Your task to perform on an android device: turn smart compose on in the gmail app Image 0: 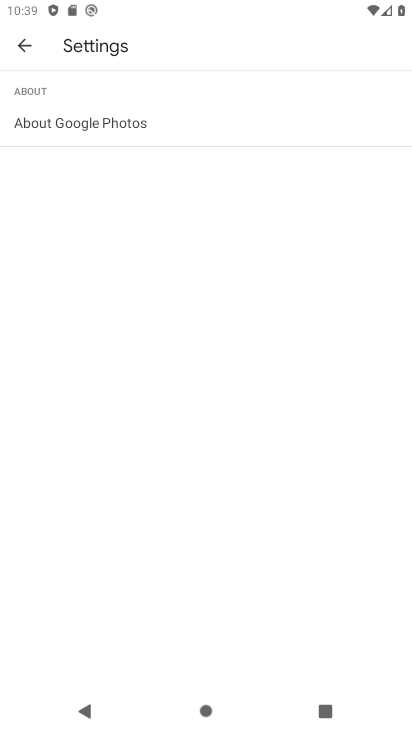
Step 0: press home button
Your task to perform on an android device: turn smart compose on in the gmail app Image 1: 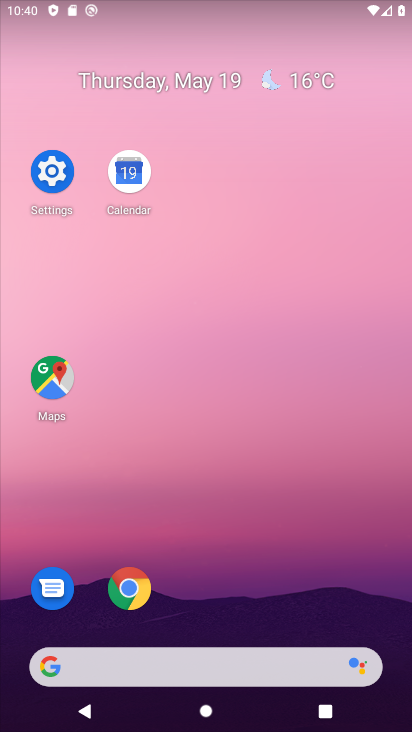
Step 1: drag from (249, 623) to (333, 117)
Your task to perform on an android device: turn smart compose on in the gmail app Image 2: 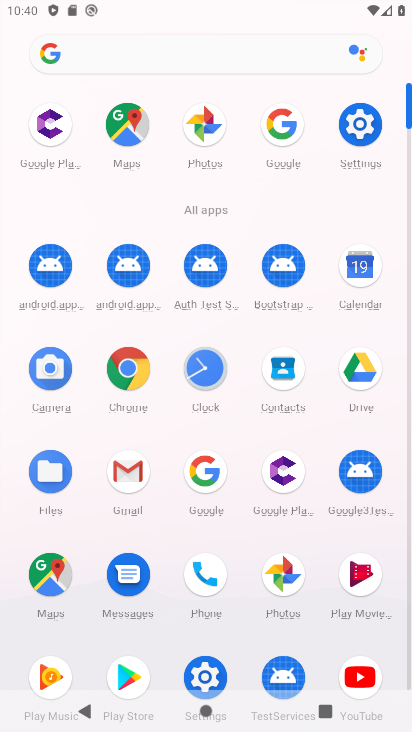
Step 2: drag from (131, 475) to (184, 189)
Your task to perform on an android device: turn smart compose on in the gmail app Image 3: 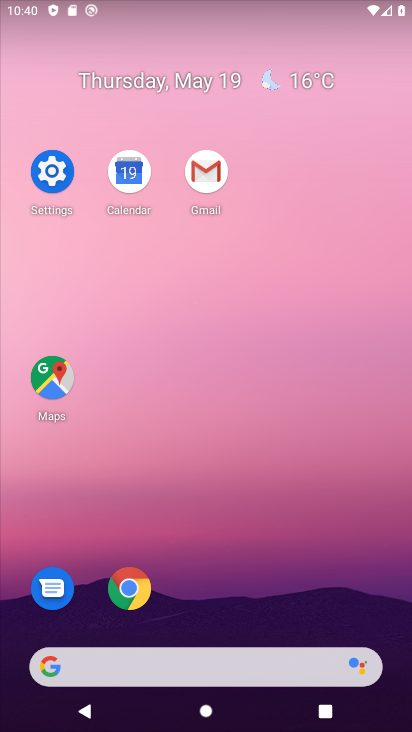
Step 3: click (189, 172)
Your task to perform on an android device: turn smart compose on in the gmail app Image 4: 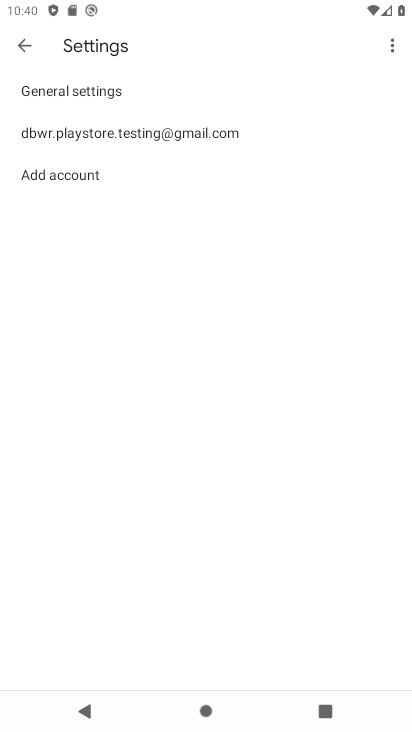
Step 4: click (110, 130)
Your task to perform on an android device: turn smart compose on in the gmail app Image 5: 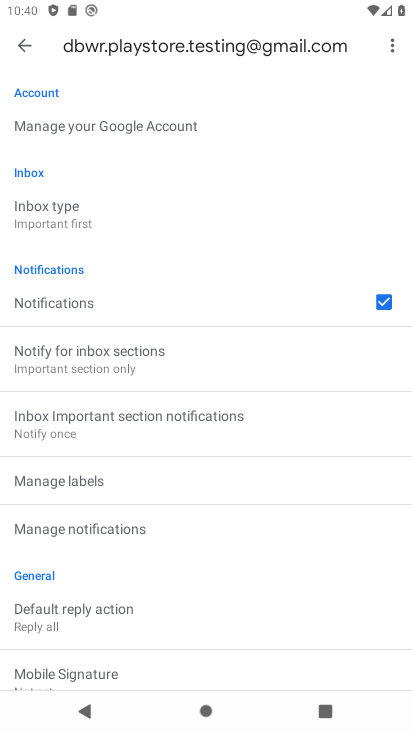
Step 5: task complete